Your task to perform on an android device: Search for flights from Tokyo to Mexico city Image 0: 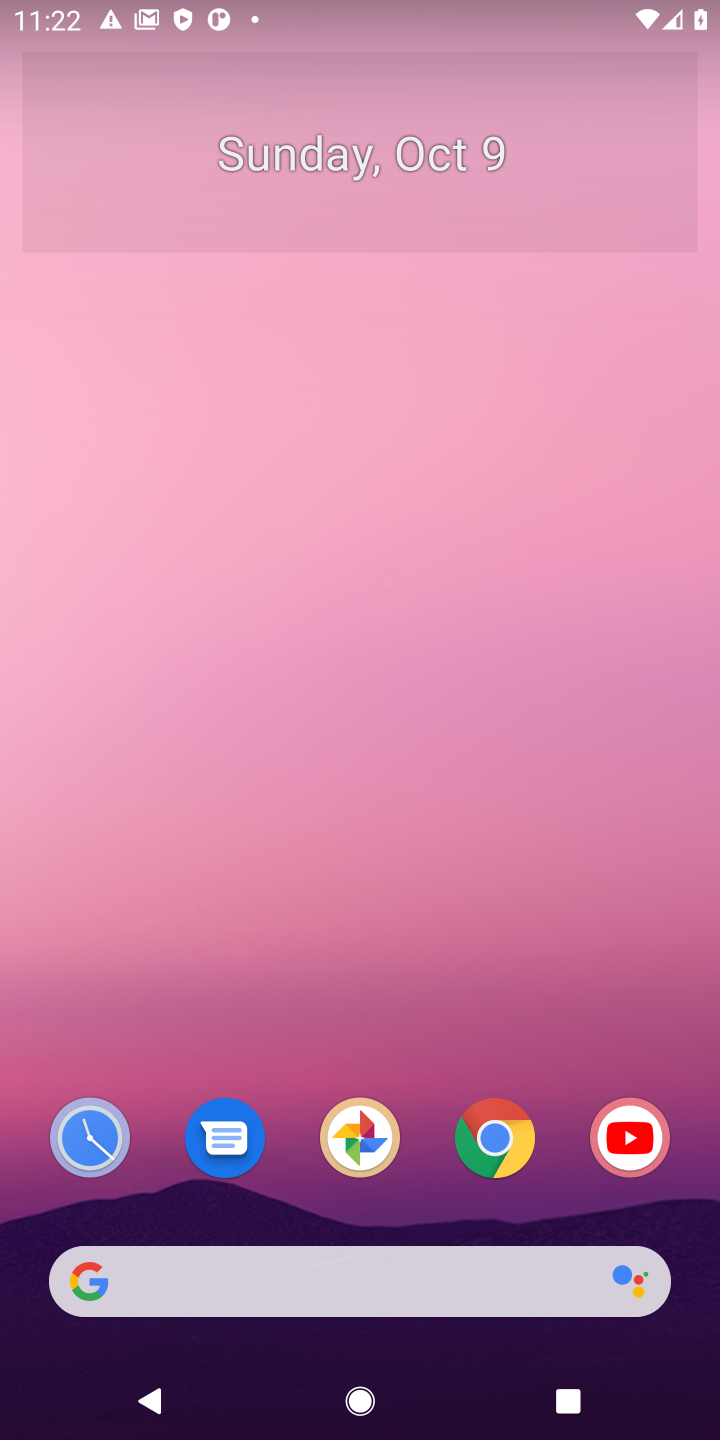
Step 0: click (517, 1113)
Your task to perform on an android device: Search for flights from Tokyo to Mexico city Image 1: 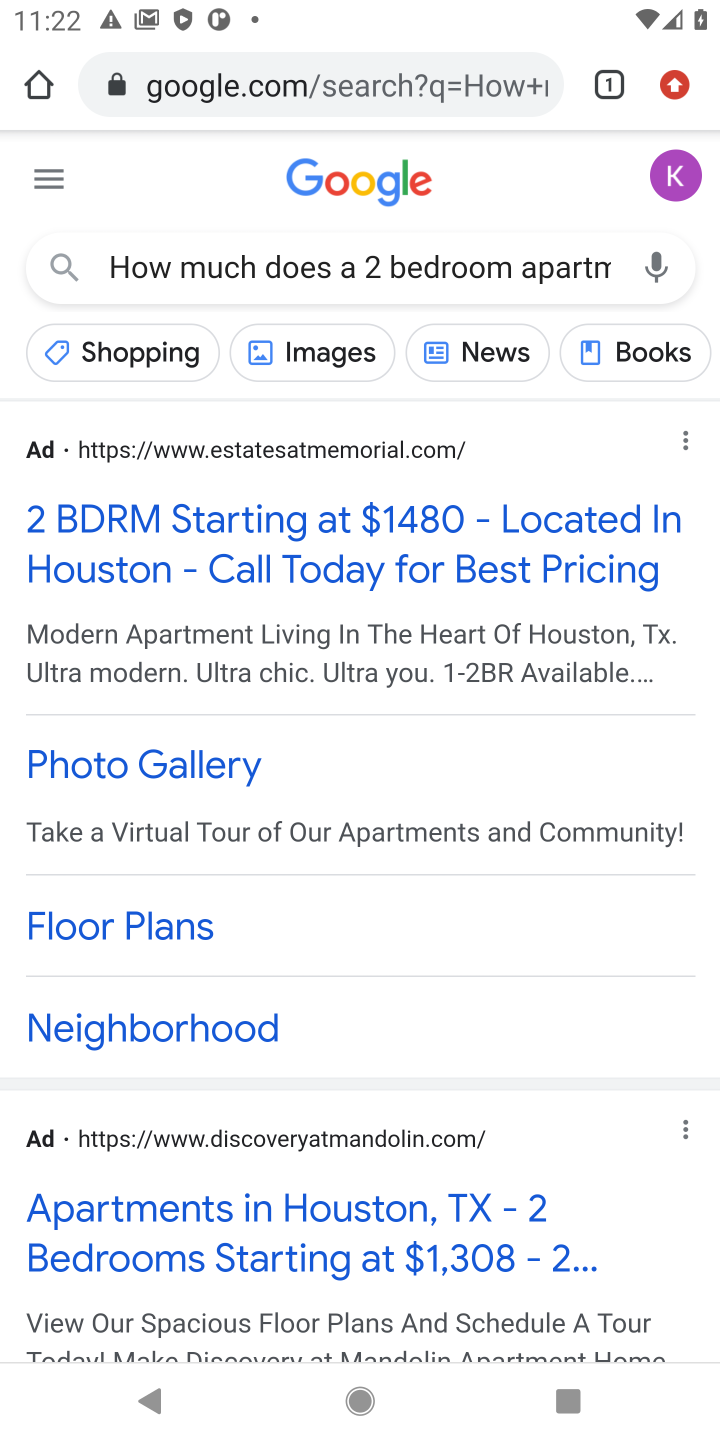
Step 1: click (496, 267)
Your task to perform on an android device: Search for flights from Tokyo to Mexico city Image 2: 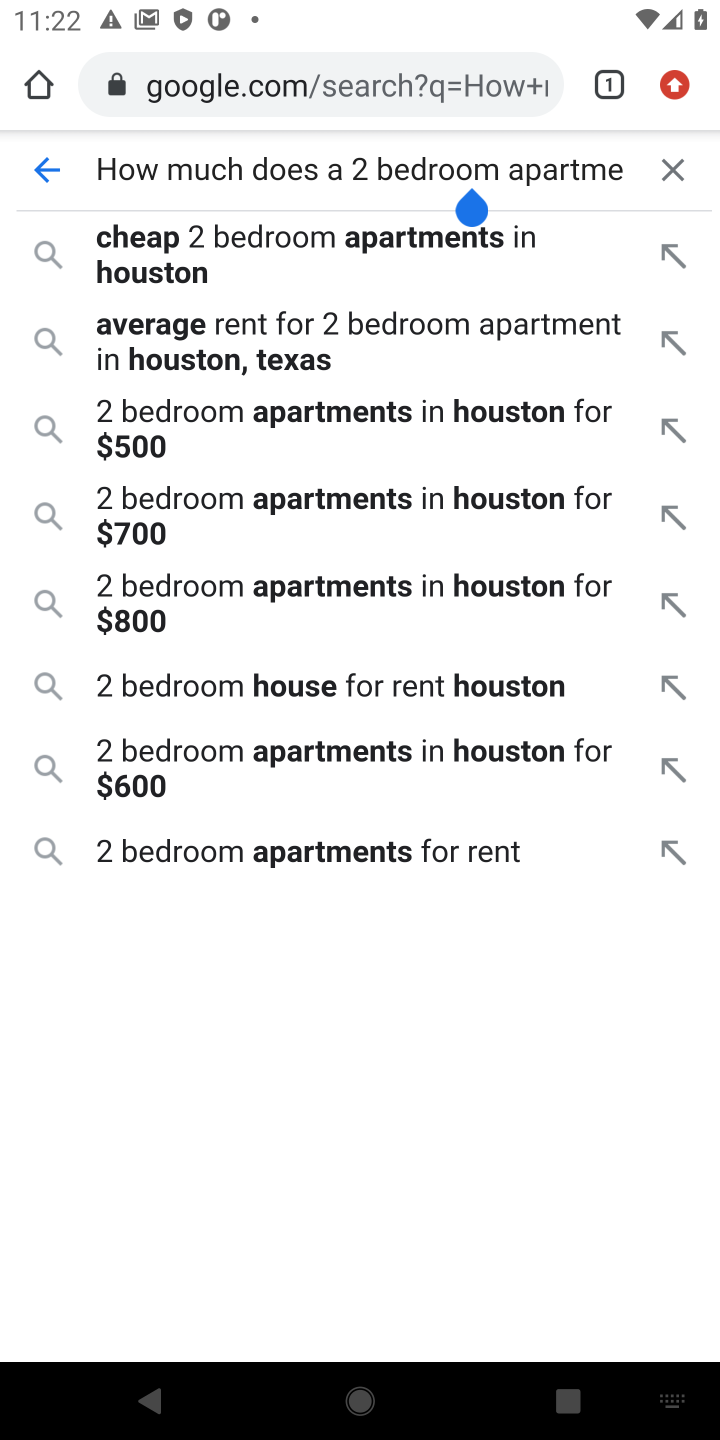
Step 2: click (670, 171)
Your task to perform on an android device: Search for flights from Tokyo to Mexico city Image 3: 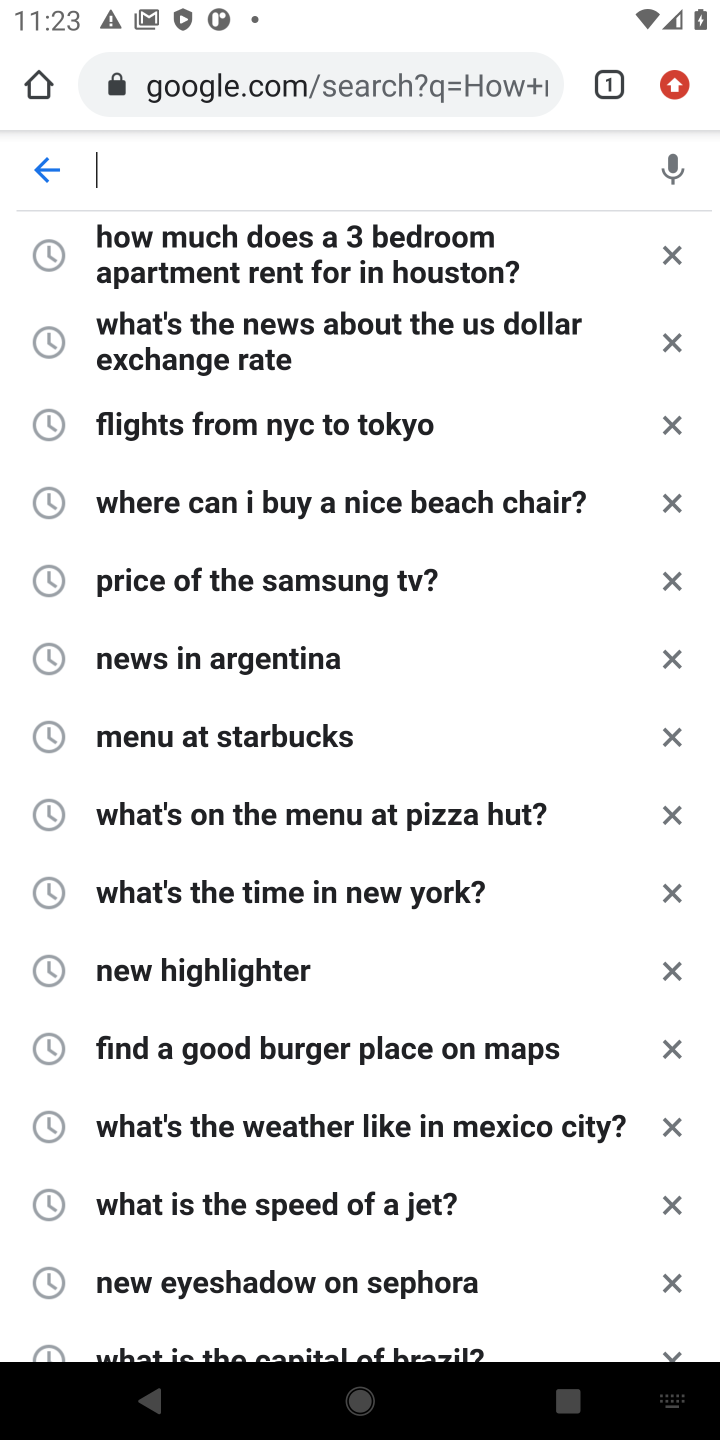
Step 3: type "flights from Tokyo to Mexico city"
Your task to perform on an android device: Search for flights from Tokyo to Mexico city Image 4: 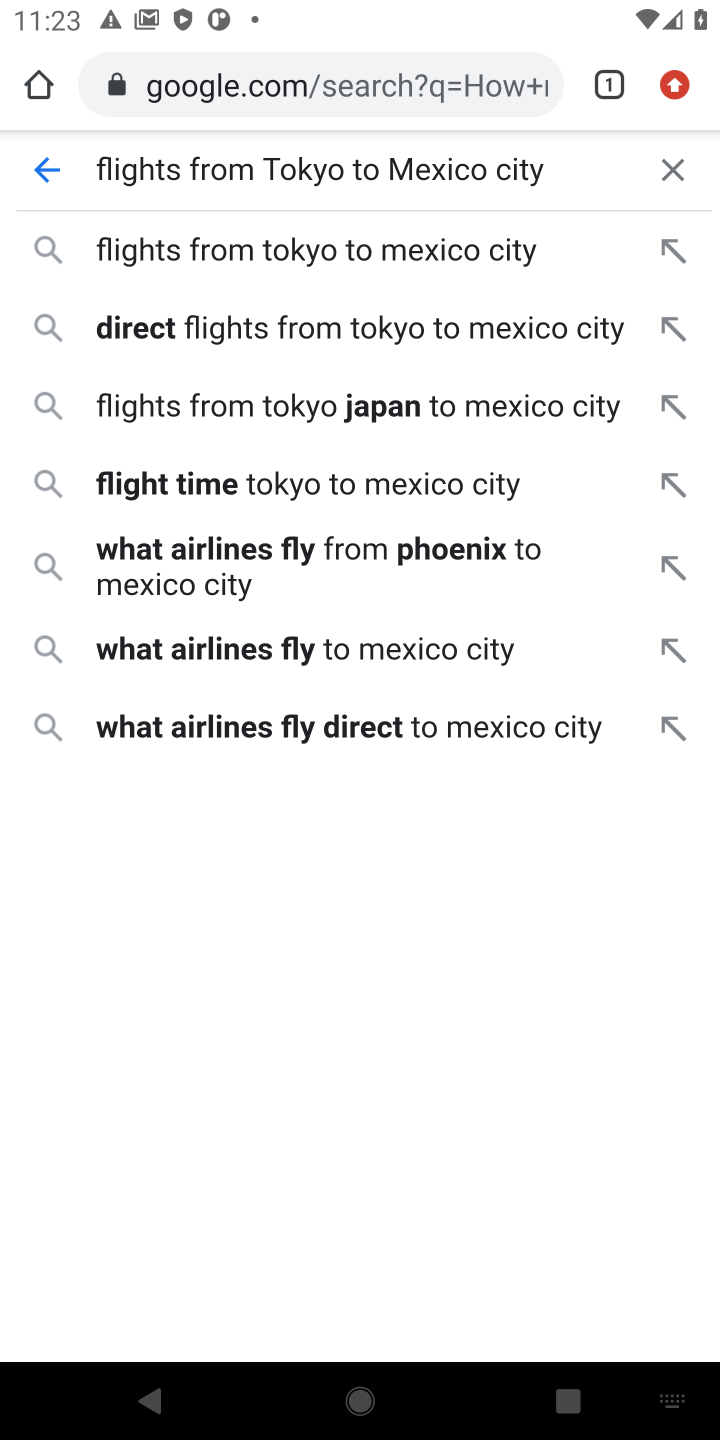
Step 4: press enter
Your task to perform on an android device: Search for flights from Tokyo to Mexico city Image 5: 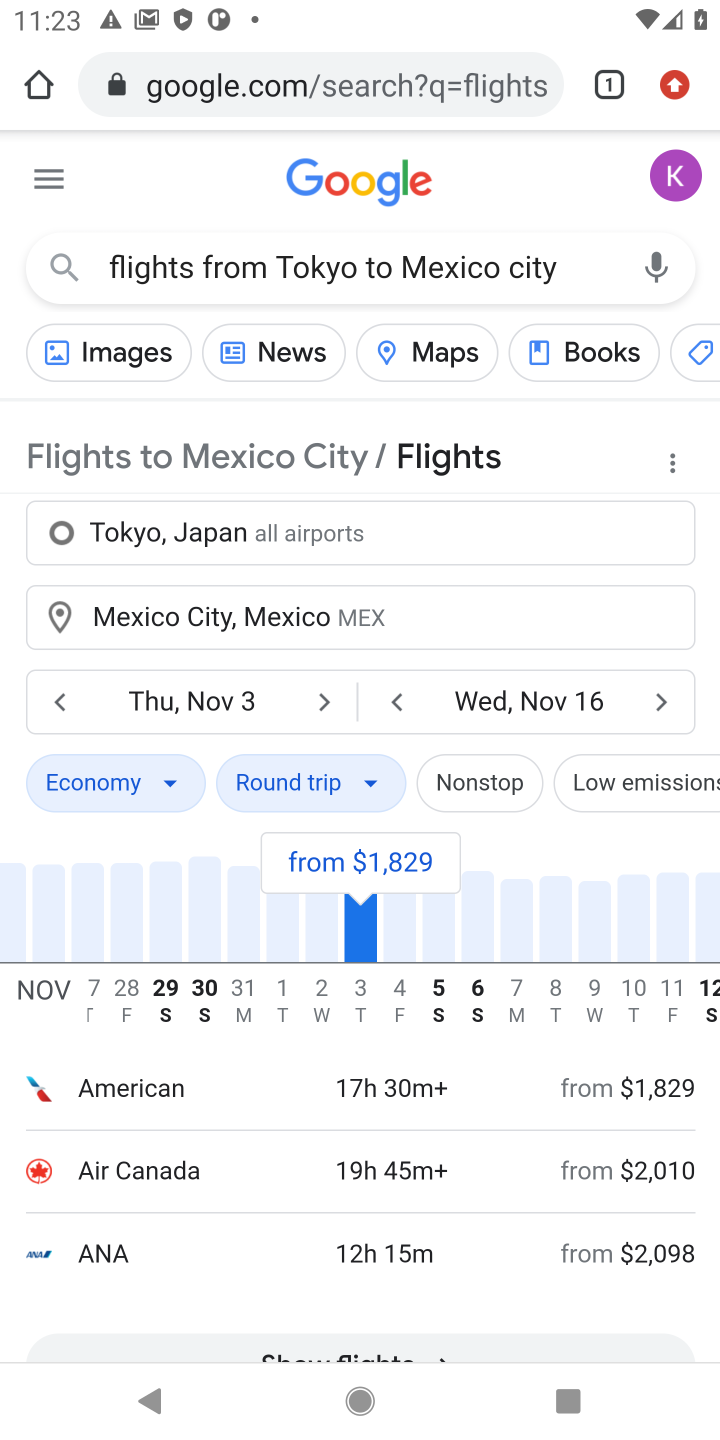
Step 5: task complete